Your task to perform on an android device: Go to ESPN.com Image 0: 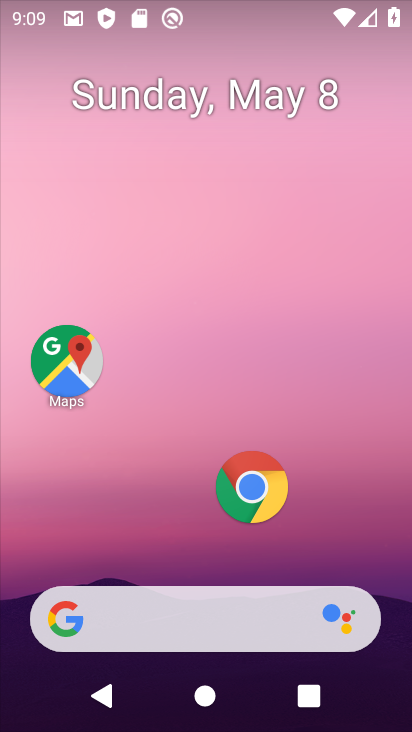
Step 0: click (271, 629)
Your task to perform on an android device: Go to ESPN.com Image 1: 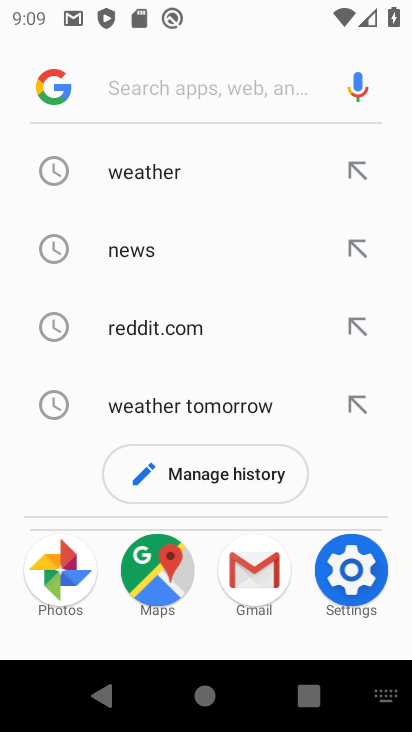
Step 1: type "espn.com"
Your task to perform on an android device: Go to ESPN.com Image 2: 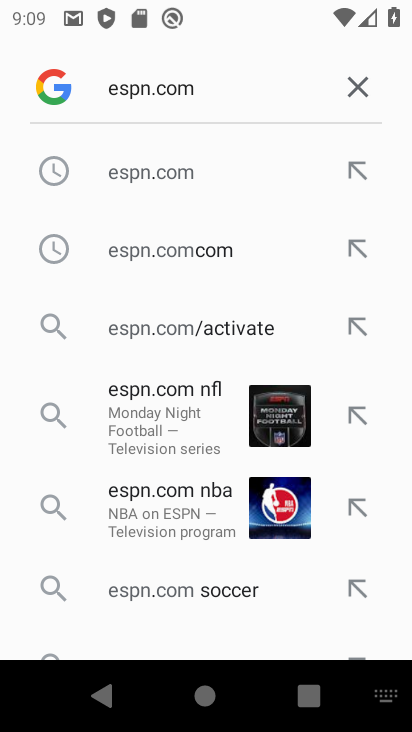
Step 2: click (172, 171)
Your task to perform on an android device: Go to ESPN.com Image 3: 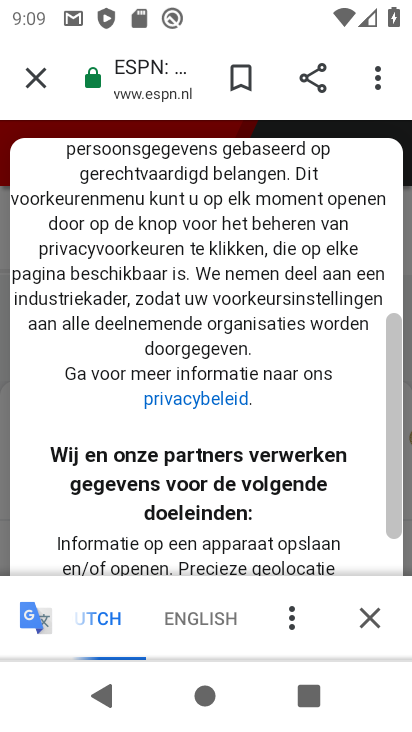
Step 3: task complete